Your task to perform on an android device: change the clock style Image 0: 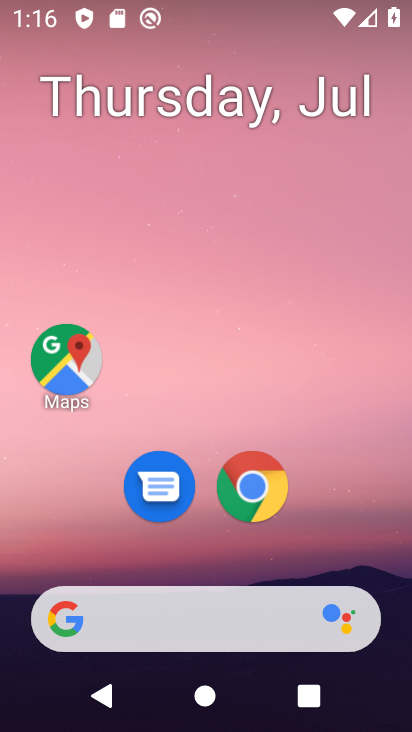
Step 0: drag from (153, 518) to (240, 147)
Your task to perform on an android device: change the clock style Image 1: 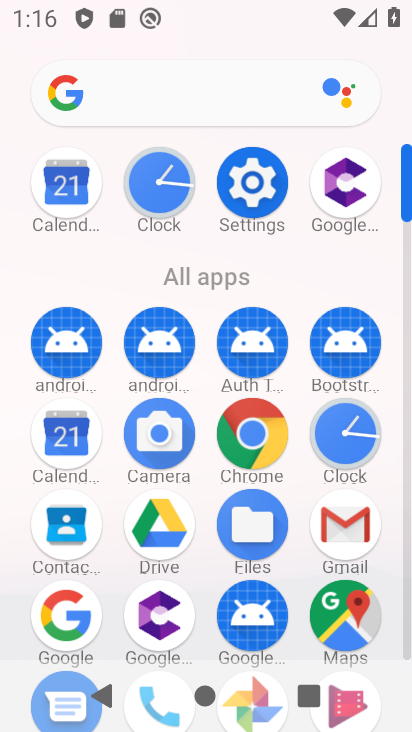
Step 1: click (349, 435)
Your task to perform on an android device: change the clock style Image 2: 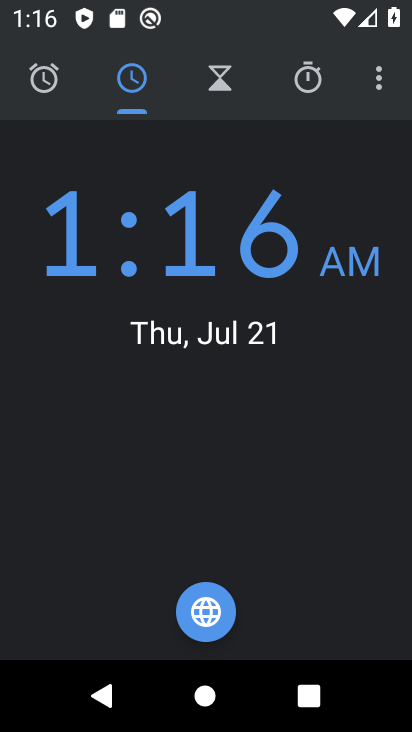
Step 2: click (375, 82)
Your task to perform on an android device: change the clock style Image 3: 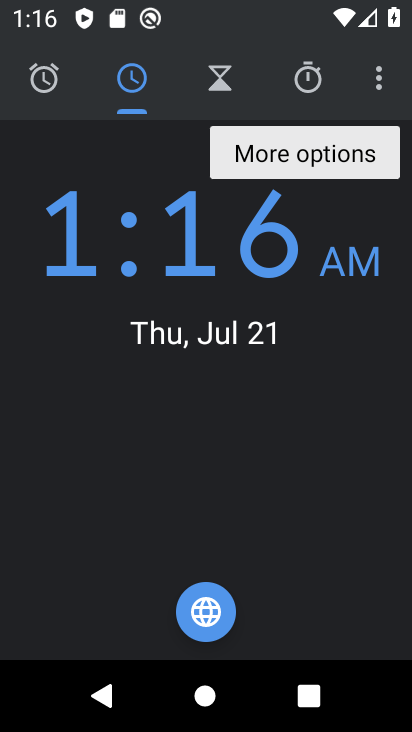
Step 3: click (380, 75)
Your task to perform on an android device: change the clock style Image 4: 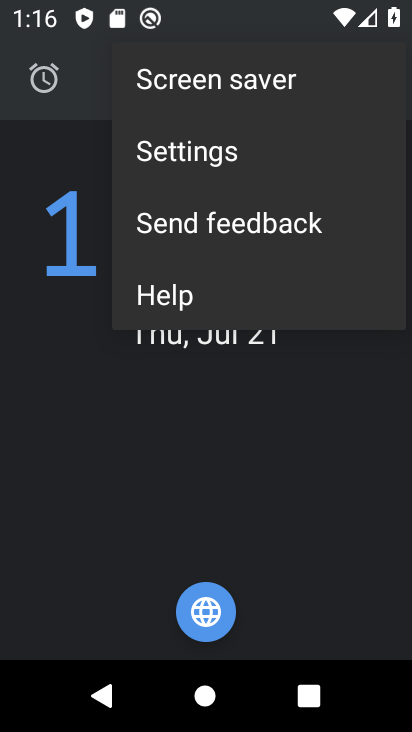
Step 4: click (183, 155)
Your task to perform on an android device: change the clock style Image 5: 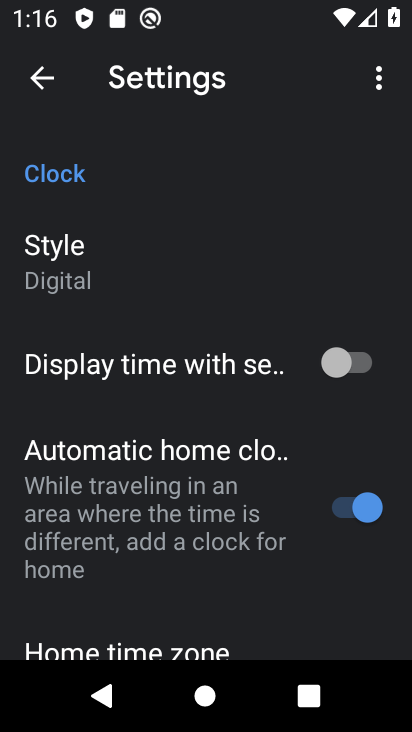
Step 5: click (90, 266)
Your task to perform on an android device: change the clock style Image 6: 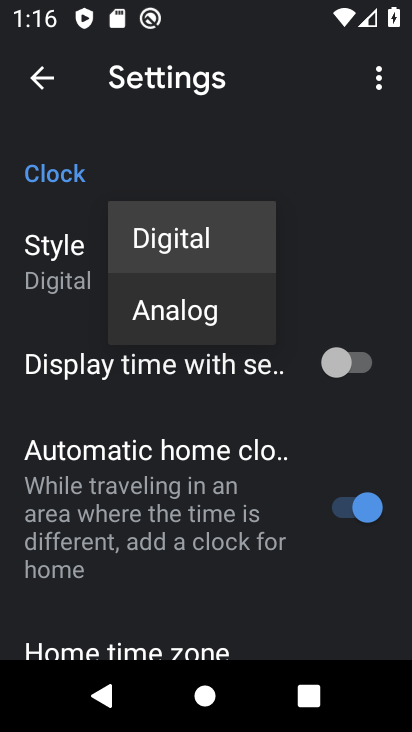
Step 6: click (167, 296)
Your task to perform on an android device: change the clock style Image 7: 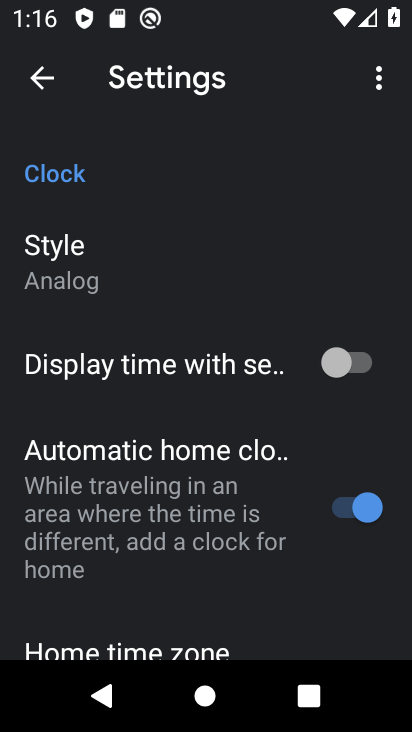
Step 7: task complete